Your task to perform on an android device: Set the phone to "Do not disturb". Image 0: 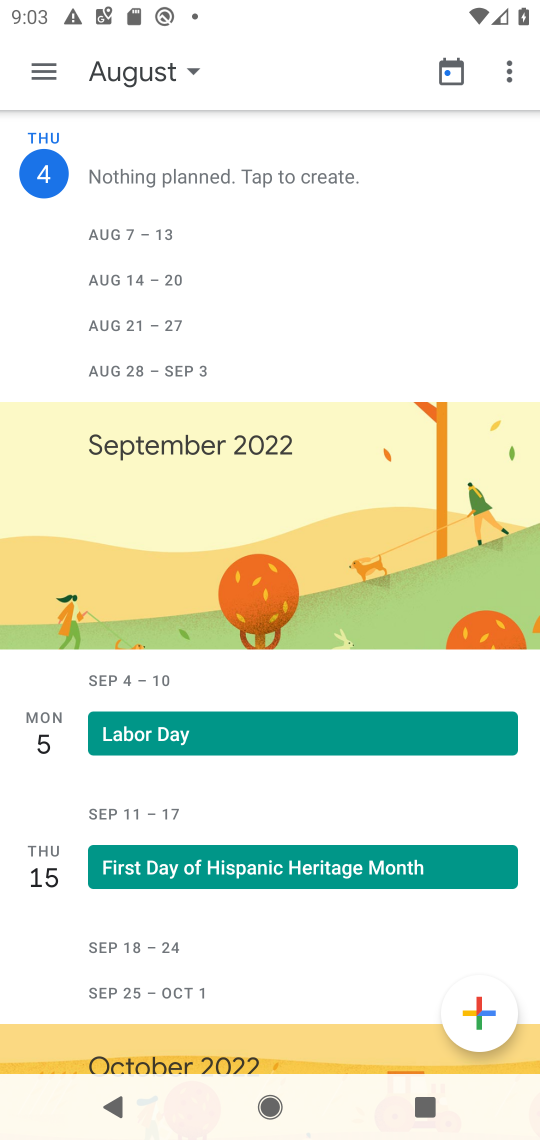
Step 0: press home button
Your task to perform on an android device: Set the phone to "Do not disturb". Image 1: 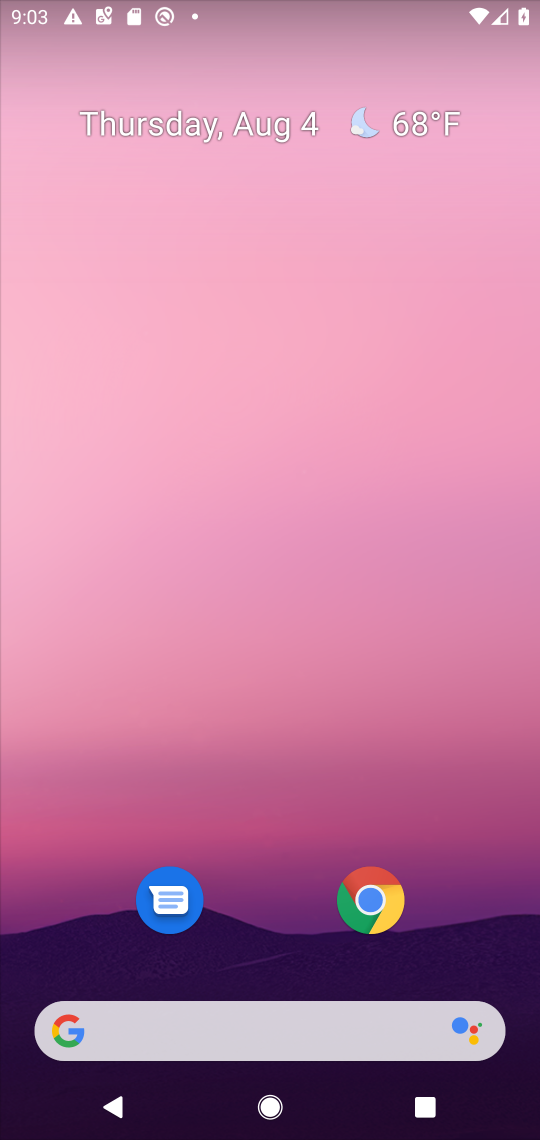
Step 1: drag from (266, 830) to (256, 159)
Your task to perform on an android device: Set the phone to "Do not disturb". Image 2: 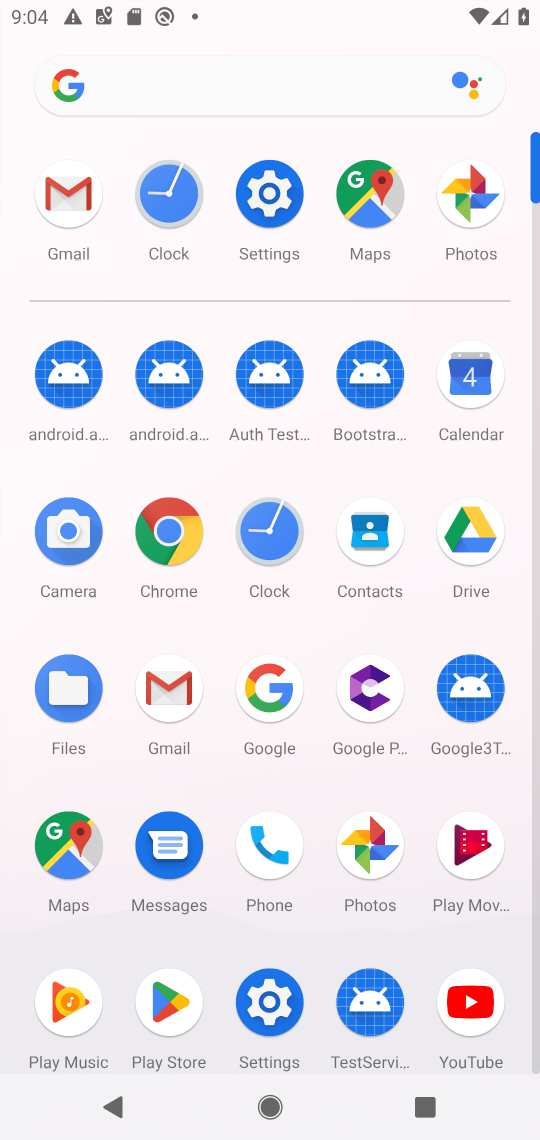
Step 2: click (268, 996)
Your task to perform on an android device: Set the phone to "Do not disturb". Image 3: 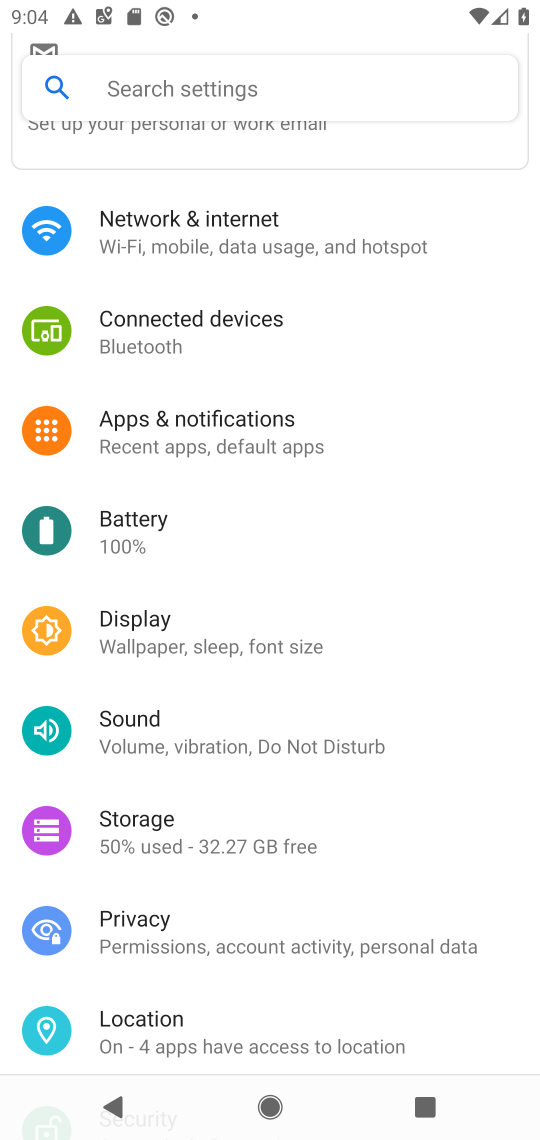
Step 3: click (157, 740)
Your task to perform on an android device: Set the phone to "Do not disturb". Image 4: 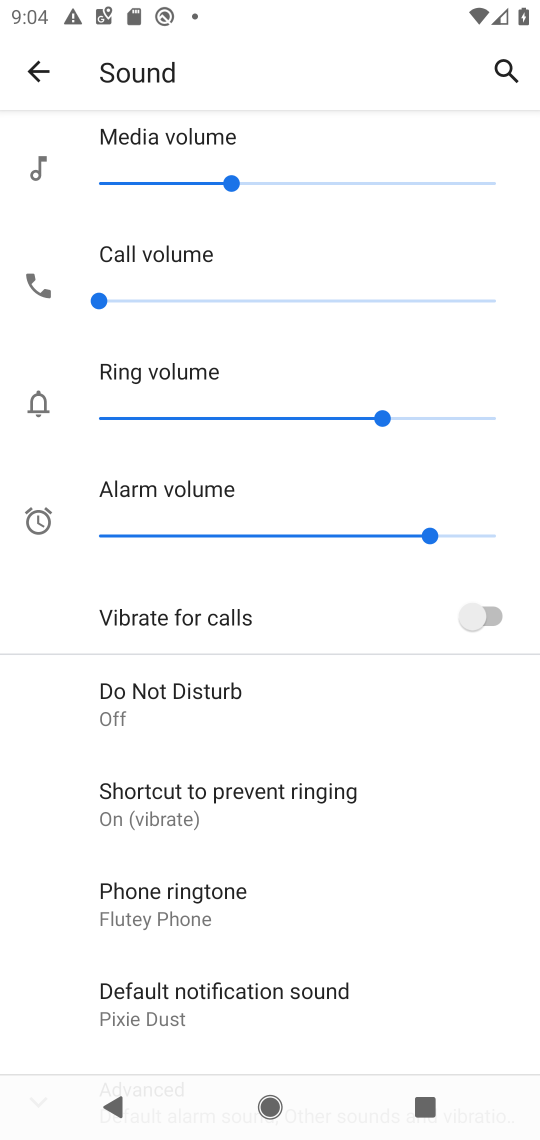
Step 4: click (177, 705)
Your task to perform on an android device: Set the phone to "Do not disturb". Image 5: 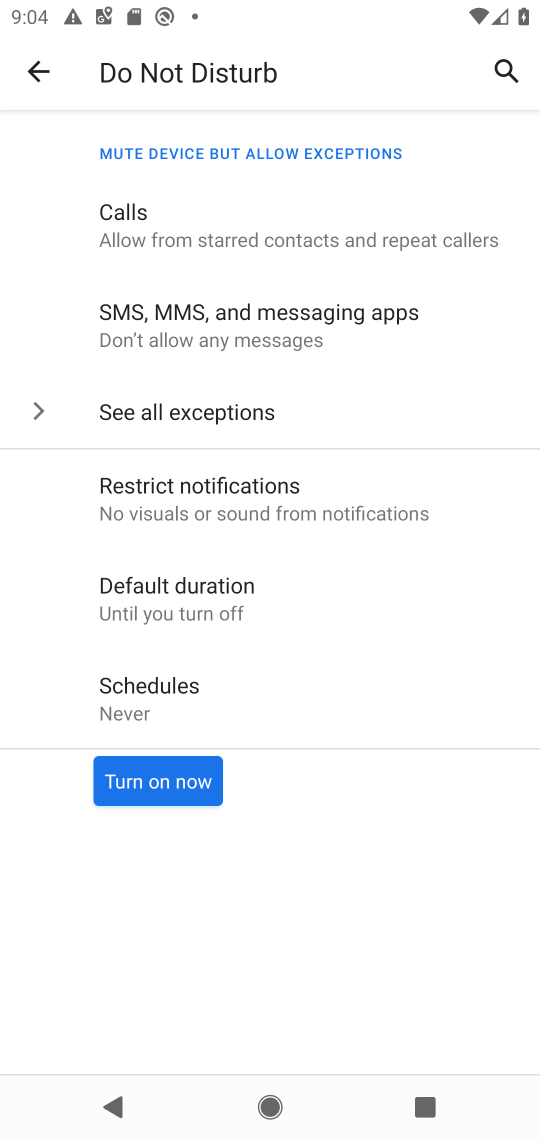
Step 5: click (137, 783)
Your task to perform on an android device: Set the phone to "Do not disturb". Image 6: 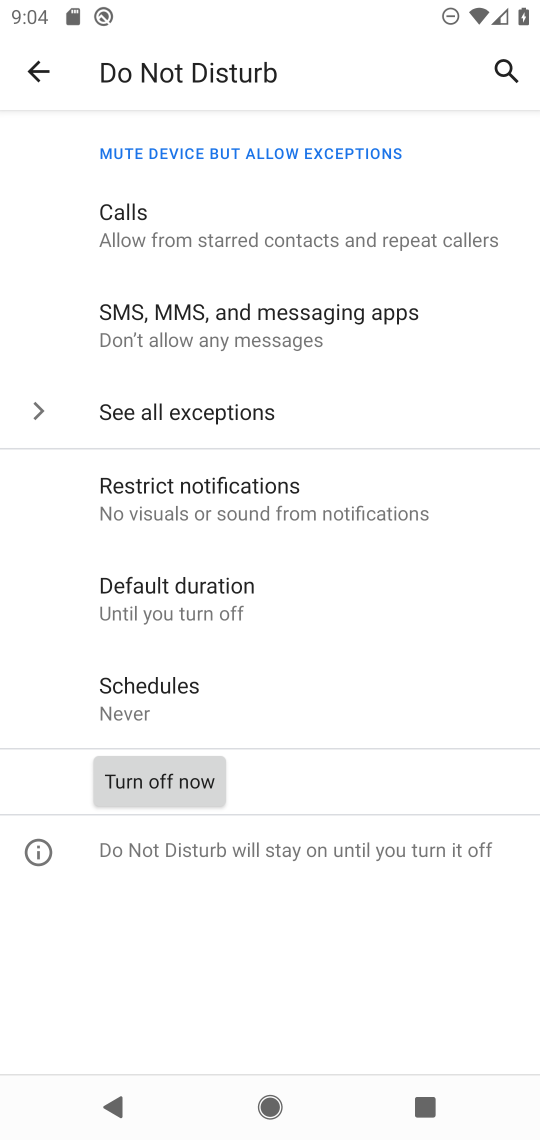
Step 6: task complete